Your task to perform on an android device: allow cookies in the chrome app Image 0: 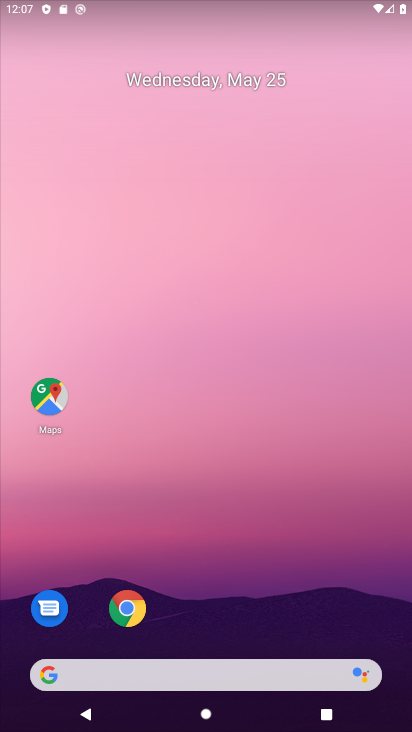
Step 0: click (128, 602)
Your task to perform on an android device: allow cookies in the chrome app Image 1: 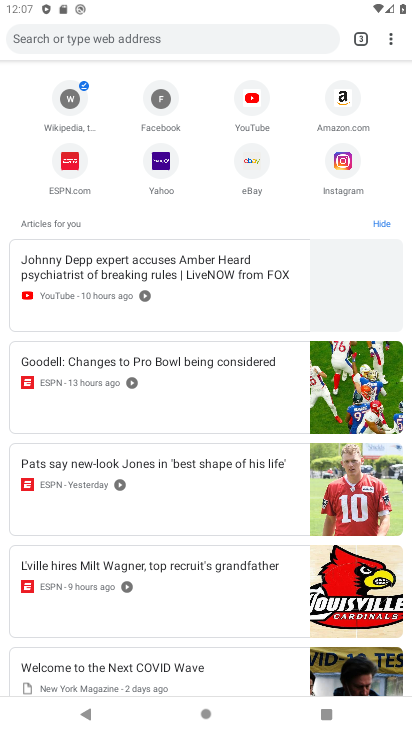
Step 1: task complete